Your task to perform on an android device: refresh tabs in the chrome app Image 0: 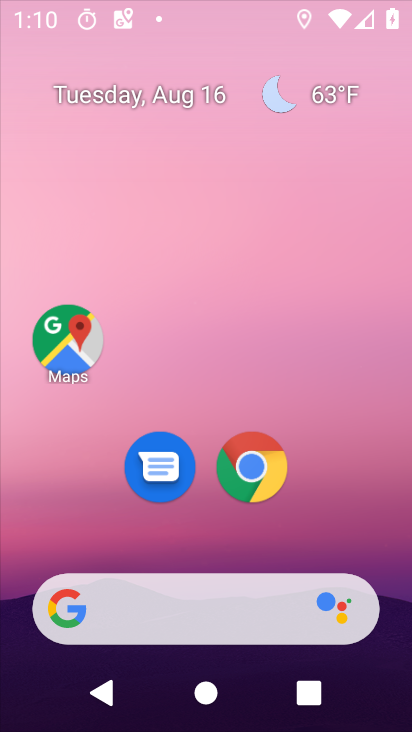
Step 0: press home button
Your task to perform on an android device: refresh tabs in the chrome app Image 1: 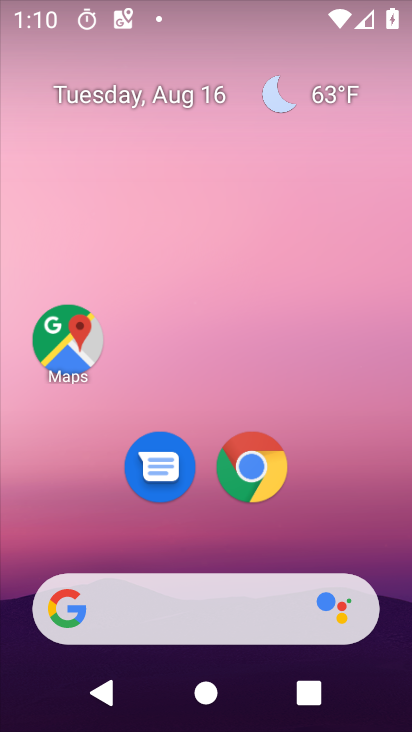
Step 1: drag from (353, 529) to (367, 120)
Your task to perform on an android device: refresh tabs in the chrome app Image 2: 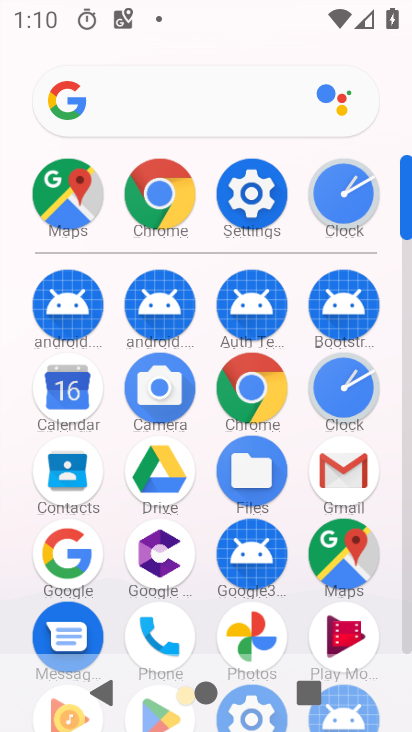
Step 2: click (263, 375)
Your task to perform on an android device: refresh tabs in the chrome app Image 3: 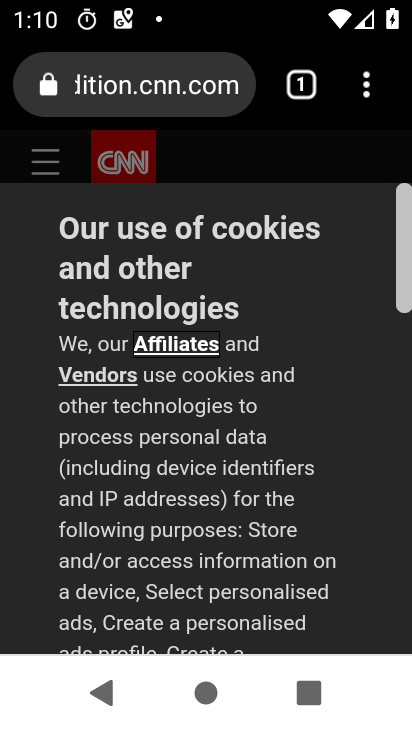
Step 3: click (368, 92)
Your task to perform on an android device: refresh tabs in the chrome app Image 4: 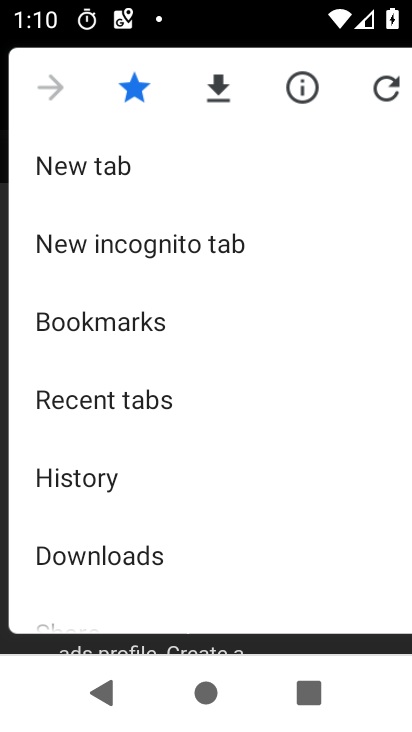
Step 4: click (390, 86)
Your task to perform on an android device: refresh tabs in the chrome app Image 5: 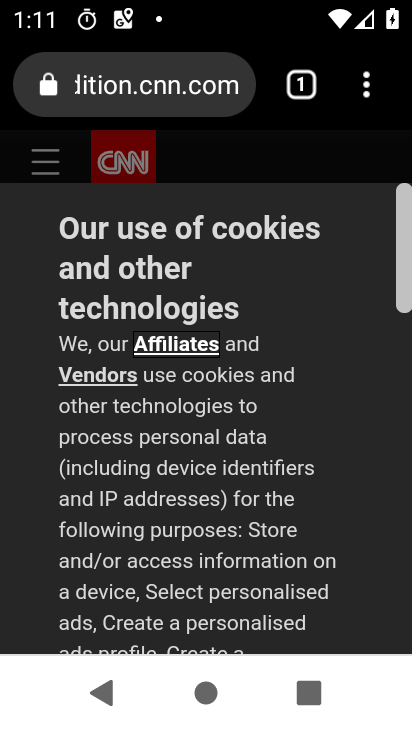
Step 5: task complete